Your task to perform on an android device: Open Android settings Image 0: 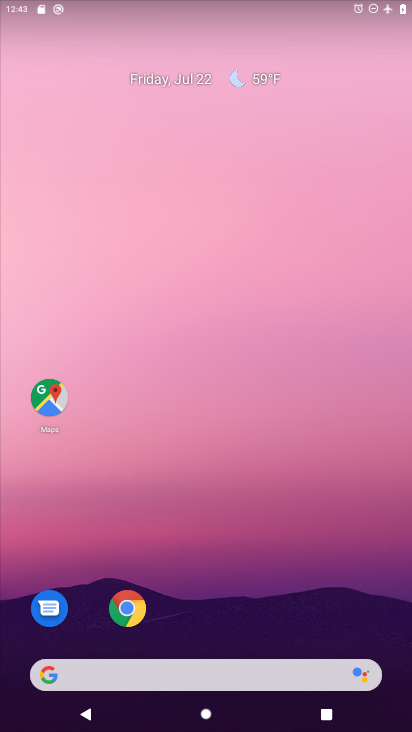
Step 0: drag from (364, 610) to (215, 50)
Your task to perform on an android device: Open Android settings Image 1: 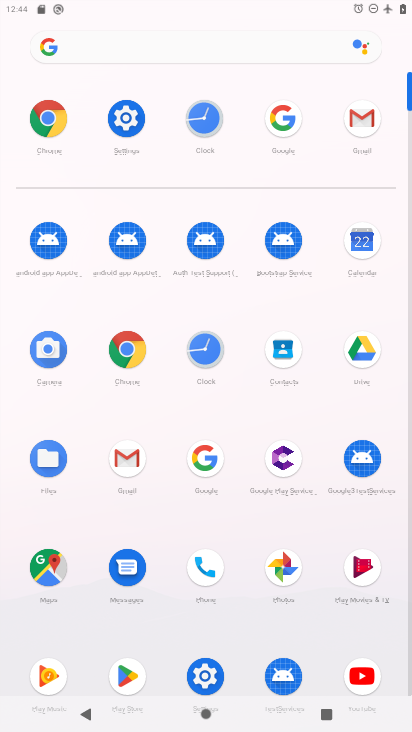
Step 1: click (210, 678)
Your task to perform on an android device: Open Android settings Image 2: 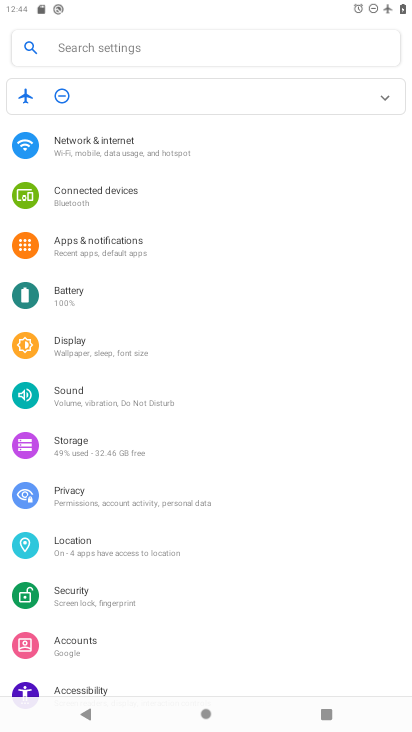
Step 2: task complete